Your task to perform on an android device: Search for Italian restaurants on Maps Image 0: 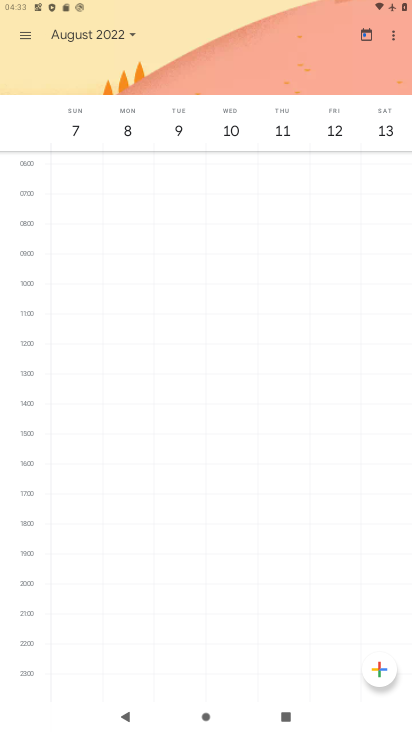
Step 0: press home button
Your task to perform on an android device: Search for Italian restaurants on Maps Image 1: 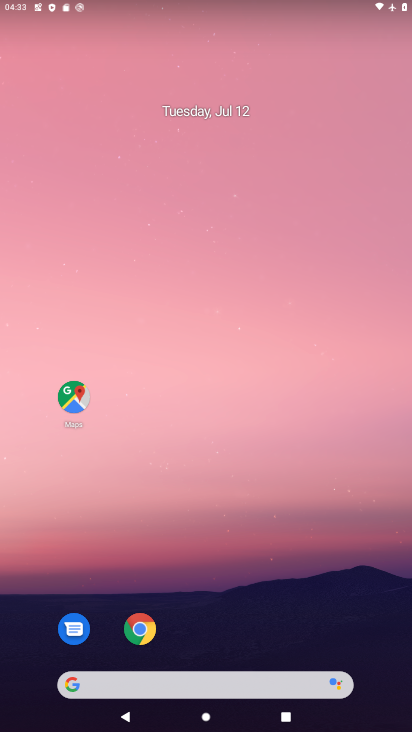
Step 1: drag from (288, 579) to (255, 111)
Your task to perform on an android device: Search for Italian restaurants on Maps Image 2: 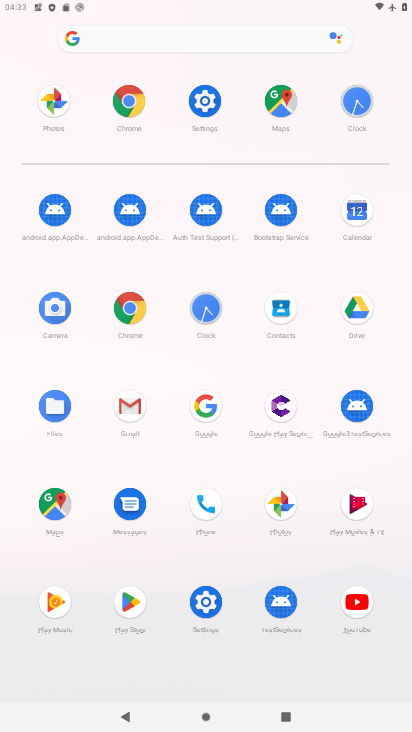
Step 2: click (57, 507)
Your task to perform on an android device: Search for Italian restaurants on Maps Image 3: 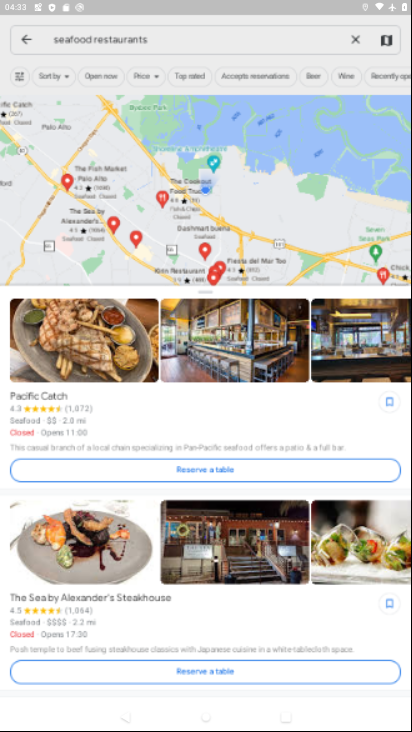
Step 3: click (296, 46)
Your task to perform on an android device: Search for Italian restaurants on Maps Image 4: 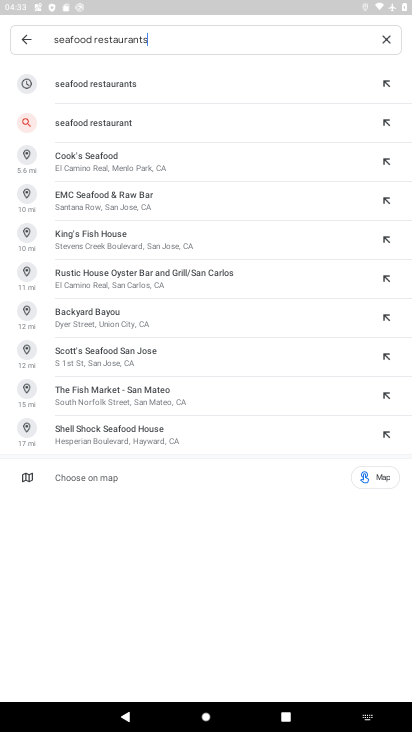
Step 4: click (383, 37)
Your task to perform on an android device: Search for Italian restaurants on Maps Image 5: 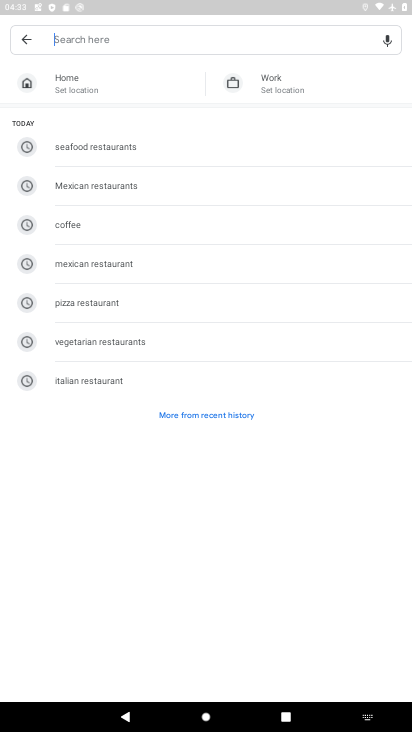
Step 5: type "Italian restaurants"
Your task to perform on an android device: Search for Italian restaurants on Maps Image 6: 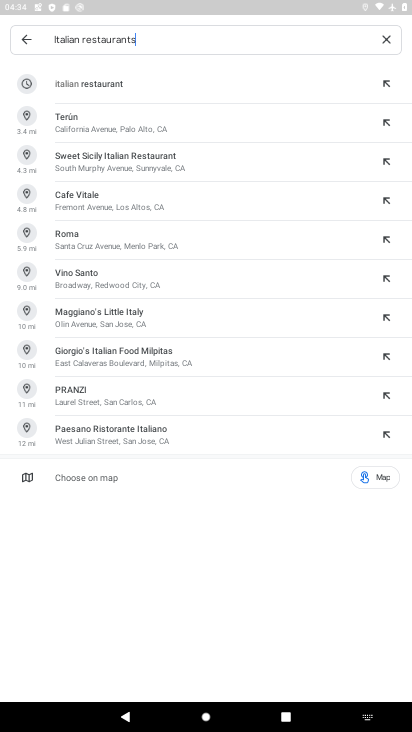
Step 6: press enter
Your task to perform on an android device: Search for Italian restaurants on Maps Image 7: 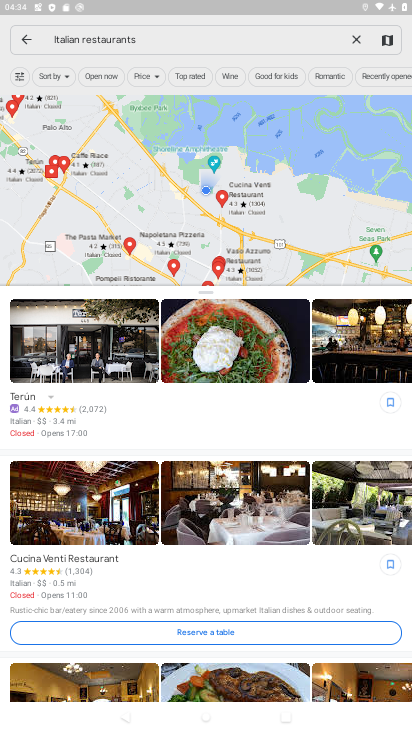
Step 7: task complete